Your task to perform on an android device: Open the calendar app, open the side menu, and click the "Day" option Image 0: 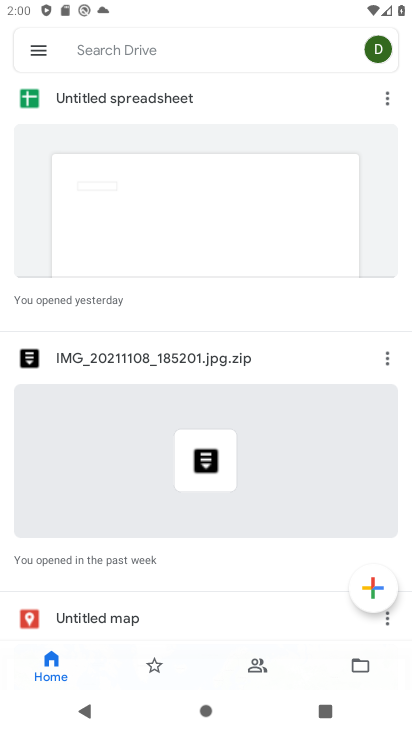
Step 0: press home button
Your task to perform on an android device: Open the calendar app, open the side menu, and click the "Day" option Image 1: 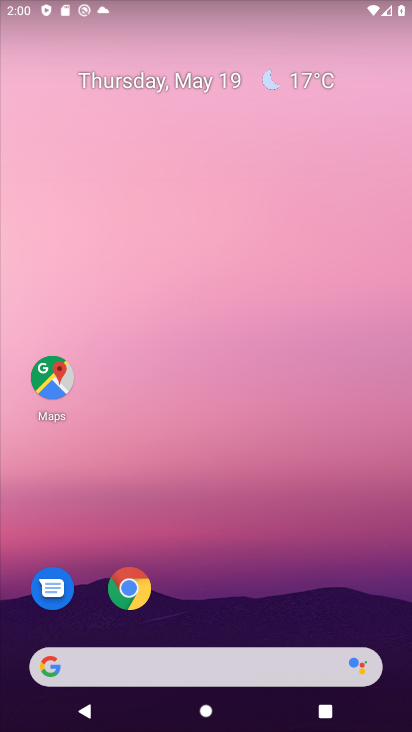
Step 1: drag from (234, 604) to (281, 186)
Your task to perform on an android device: Open the calendar app, open the side menu, and click the "Day" option Image 2: 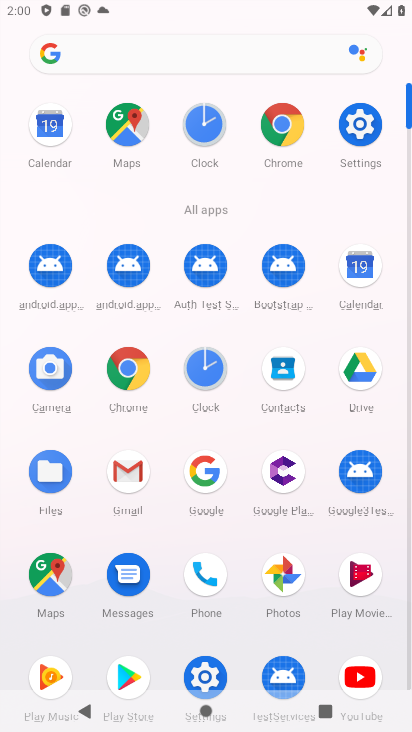
Step 2: click (55, 116)
Your task to perform on an android device: Open the calendar app, open the side menu, and click the "Day" option Image 3: 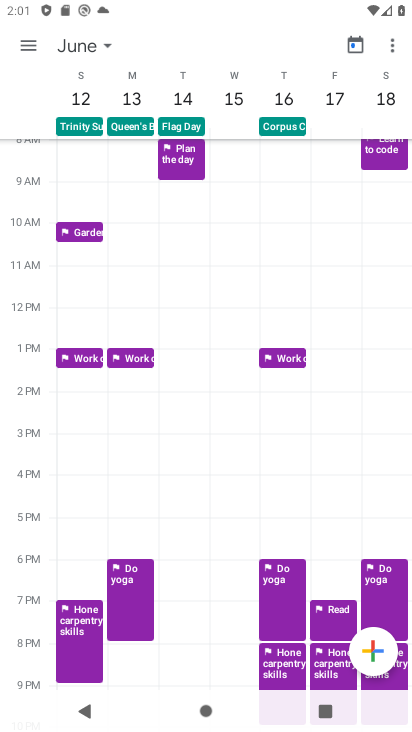
Step 3: click (32, 47)
Your task to perform on an android device: Open the calendar app, open the side menu, and click the "Day" option Image 4: 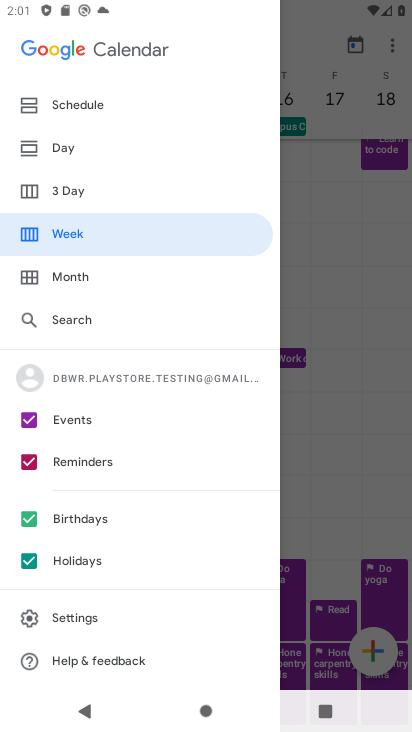
Step 4: click (72, 137)
Your task to perform on an android device: Open the calendar app, open the side menu, and click the "Day" option Image 5: 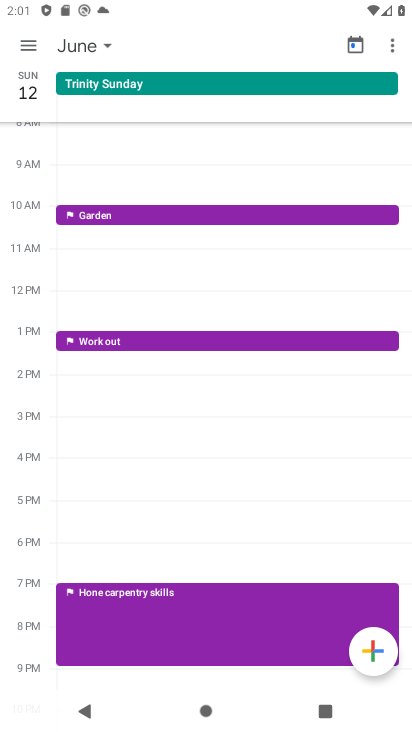
Step 5: task complete